Your task to perform on an android device: What's on my calendar today? Image 0: 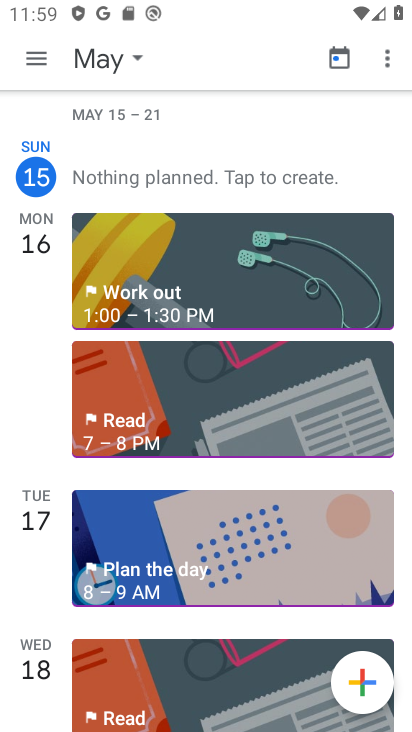
Step 0: press home button
Your task to perform on an android device: What's on my calendar today? Image 1: 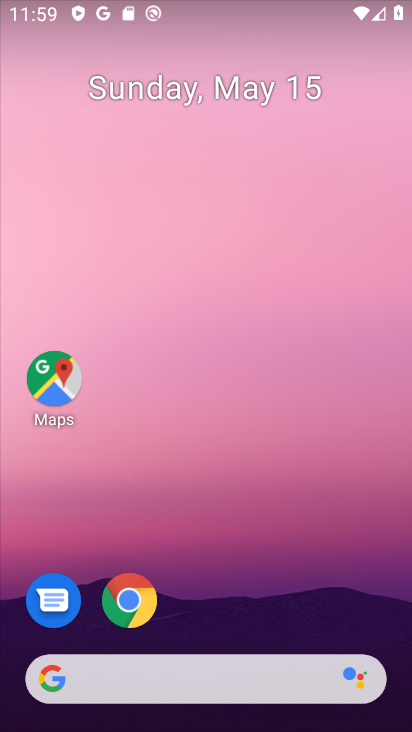
Step 1: drag from (211, 707) to (211, 222)
Your task to perform on an android device: What's on my calendar today? Image 2: 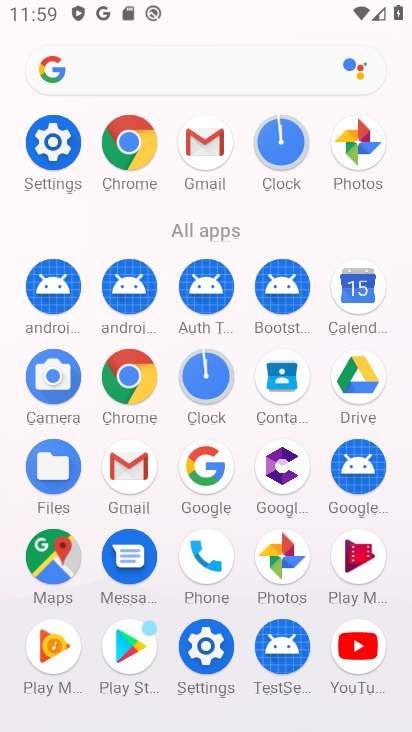
Step 2: click (359, 285)
Your task to perform on an android device: What's on my calendar today? Image 3: 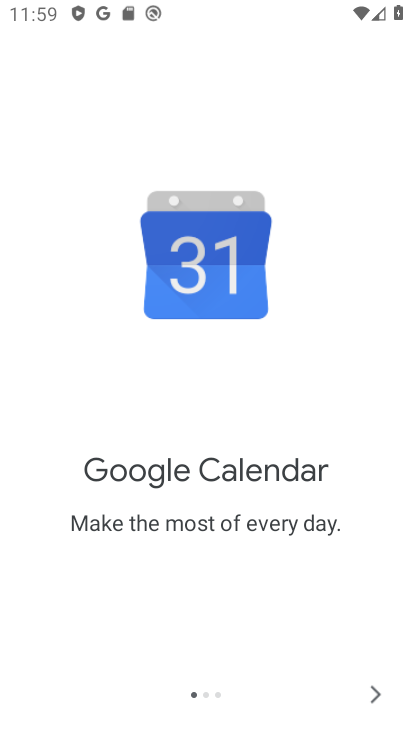
Step 3: click (380, 691)
Your task to perform on an android device: What's on my calendar today? Image 4: 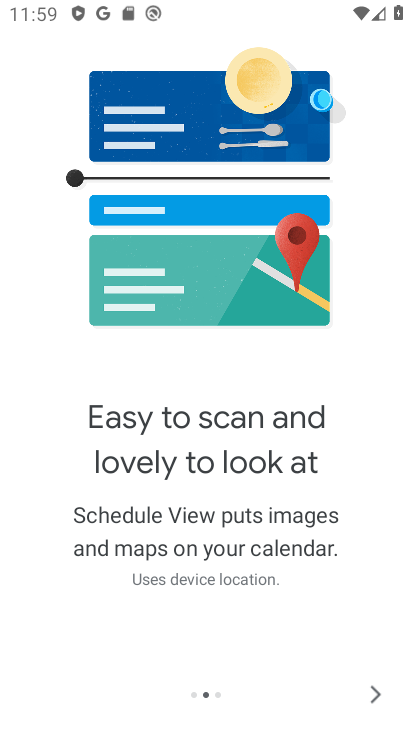
Step 4: click (380, 691)
Your task to perform on an android device: What's on my calendar today? Image 5: 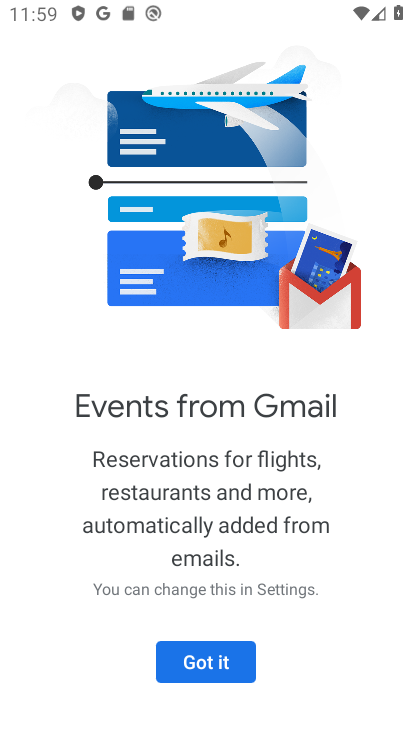
Step 5: click (203, 657)
Your task to perform on an android device: What's on my calendar today? Image 6: 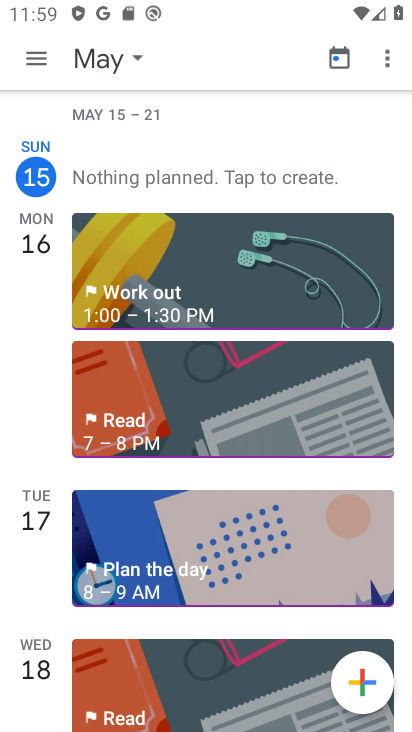
Step 6: click (108, 54)
Your task to perform on an android device: What's on my calendar today? Image 7: 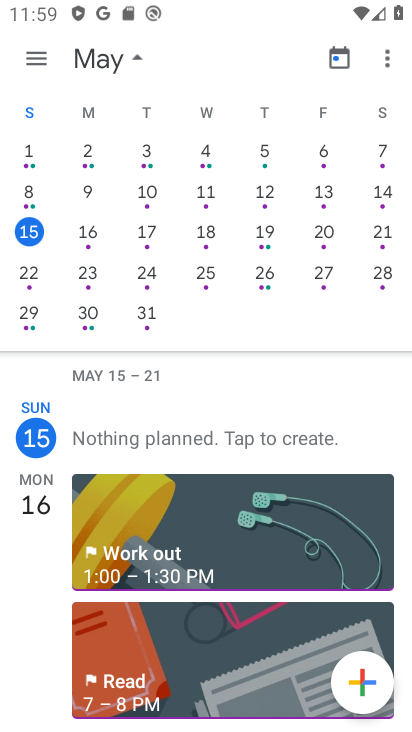
Step 7: task complete